Your task to perform on an android device: Go to calendar. Show me events next week Image 0: 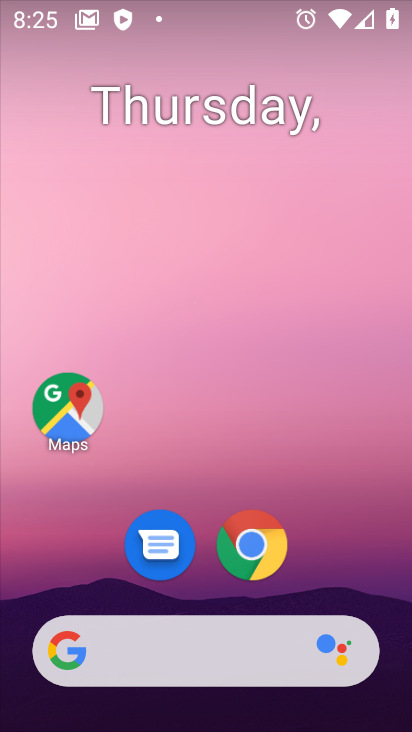
Step 0: click (244, 96)
Your task to perform on an android device: Go to calendar. Show me events next week Image 1: 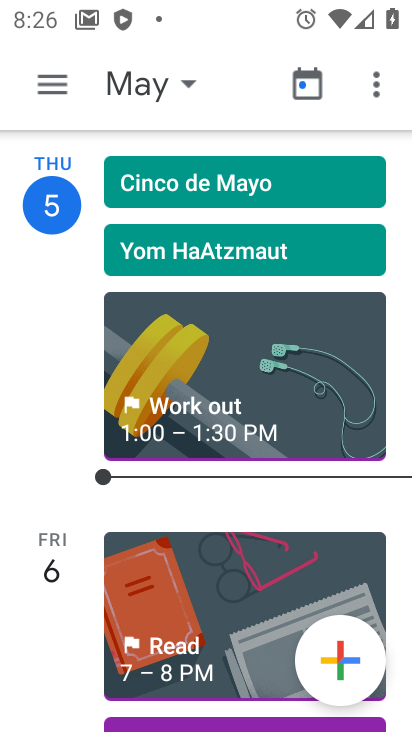
Step 1: click (157, 82)
Your task to perform on an android device: Go to calendar. Show me events next week Image 2: 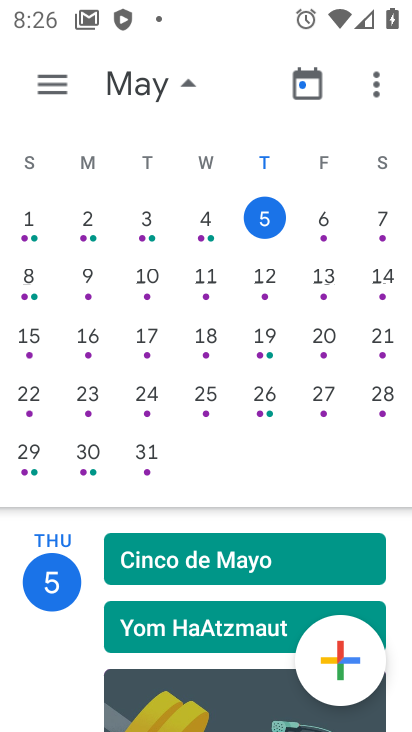
Step 2: click (200, 298)
Your task to perform on an android device: Go to calendar. Show me events next week Image 3: 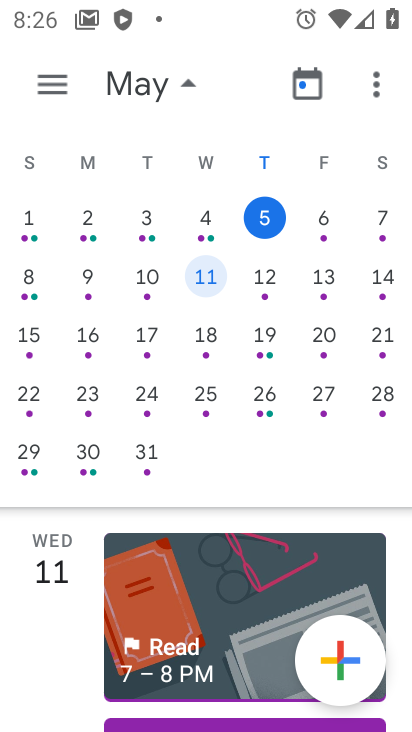
Step 3: task complete